Your task to perform on an android device: toggle sleep mode Image 0: 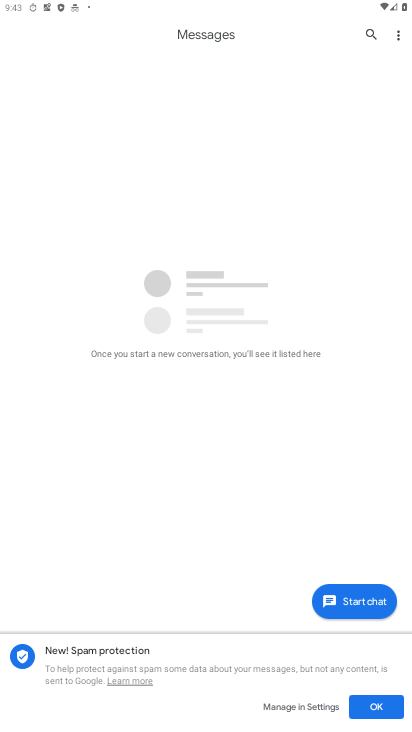
Step 0: press home button
Your task to perform on an android device: toggle sleep mode Image 1: 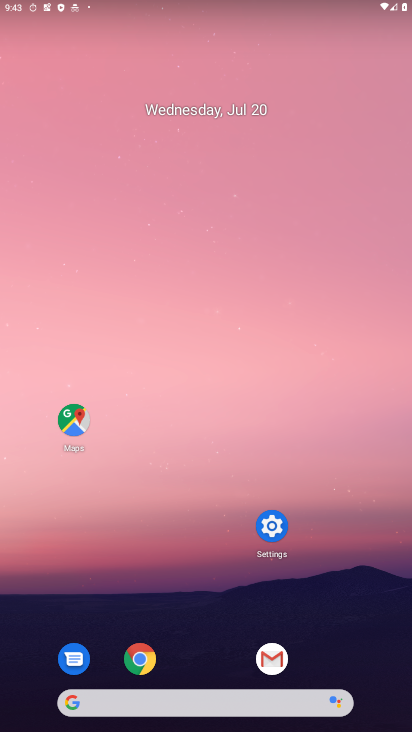
Step 1: click (264, 527)
Your task to perform on an android device: toggle sleep mode Image 2: 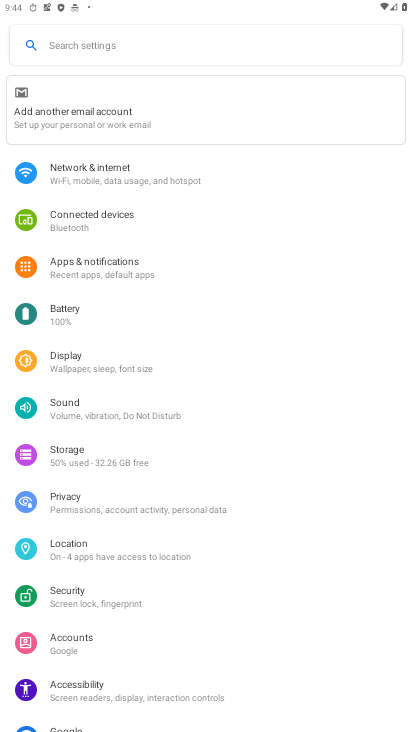
Step 2: click (104, 45)
Your task to perform on an android device: toggle sleep mode Image 3: 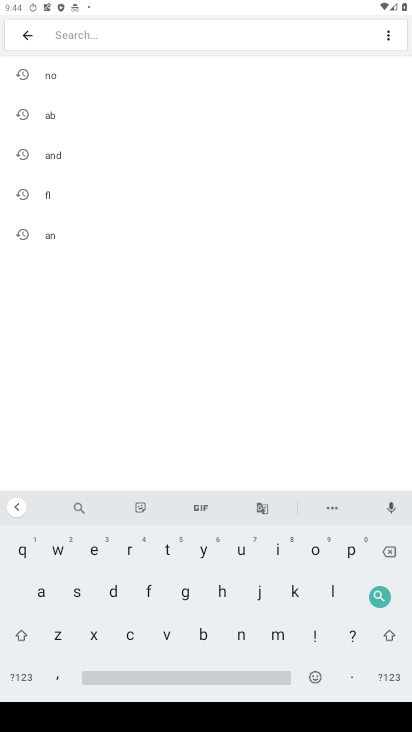
Step 3: click (83, 600)
Your task to perform on an android device: toggle sleep mode Image 4: 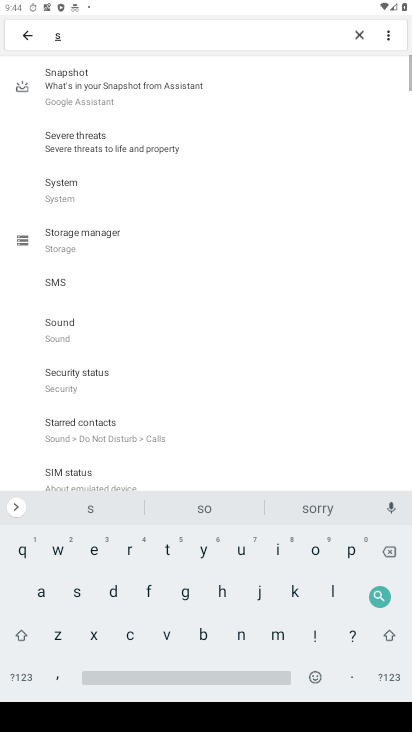
Step 4: click (338, 584)
Your task to perform on an android device: toggle sleep mode Image 5: 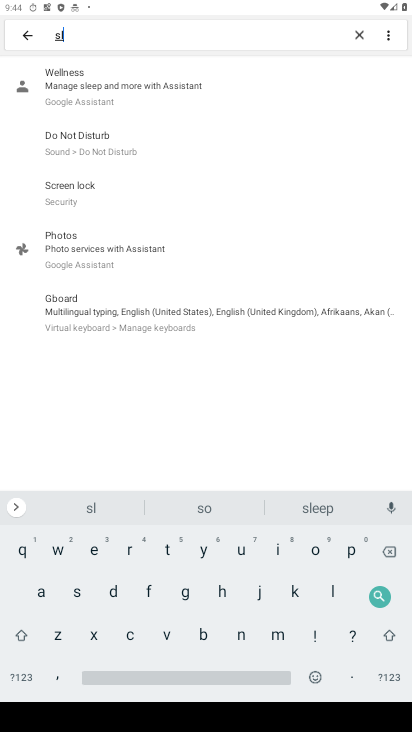
Step 5: click (136, 135)
Your task to perform on an android device: toggle sleep mode Image 6: 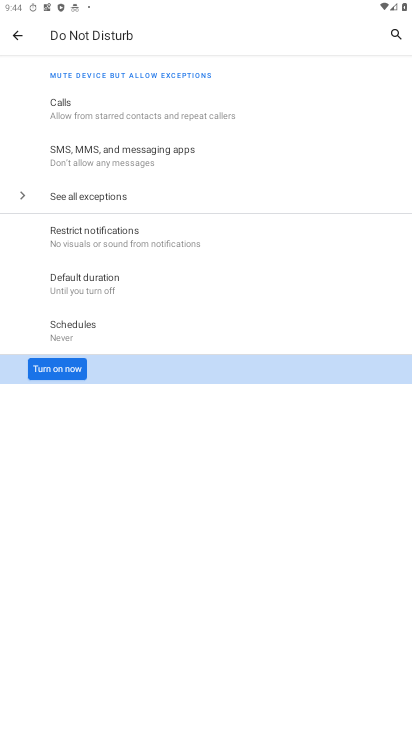
Step 6: click (69, 375)
Your task to perform on an android device: toggle sleep mode Image 7: 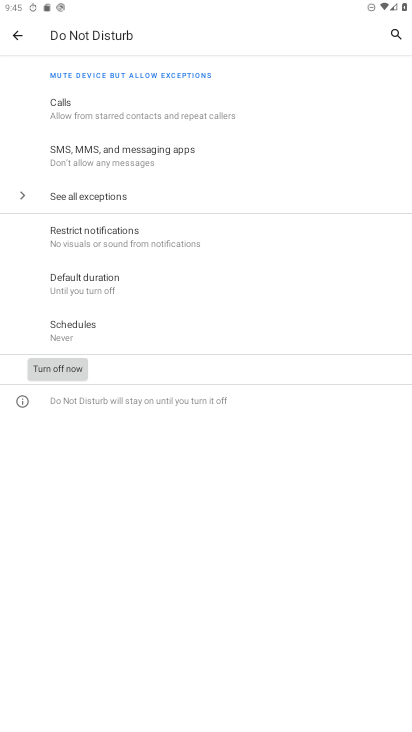
Step 7: task complete